Your task to perform on an android device: turn off data saver in the chrome app Image 0: 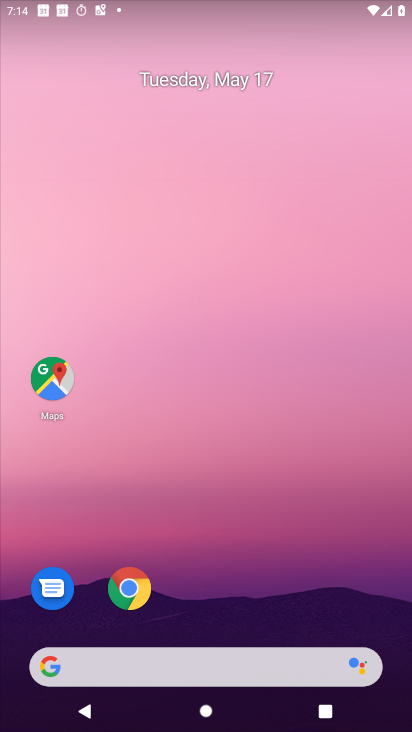
Step 0: click (129, 586)
Your task to perform on an android device: turn off data saver in the chrome app Image 1: 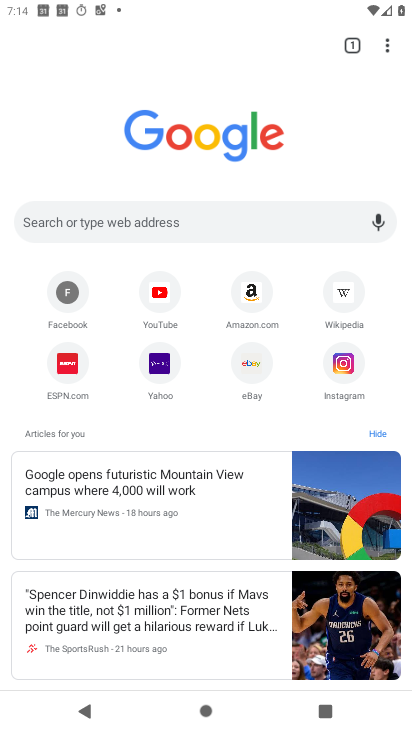
Step 1: click (387, 44)
Your task to perform on an android device: turn off data saver in the chrome app Image 2: 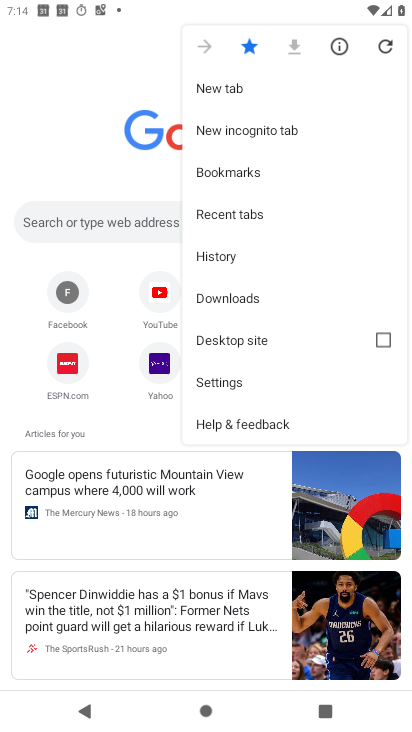
Step 2: click (207, 379)
Your task to perform on an android device: turn off data saver in the chrome app Image 3: 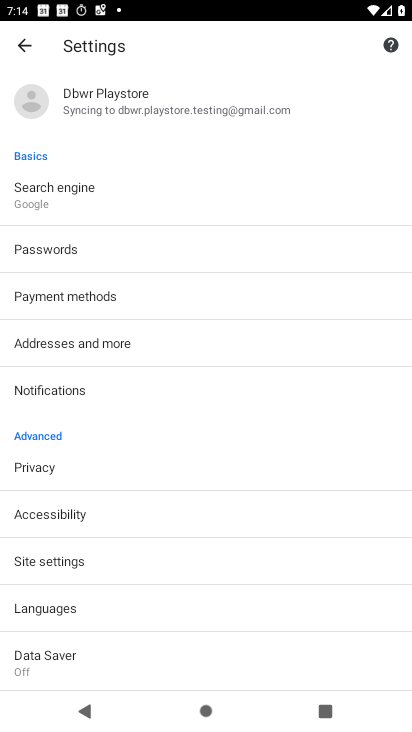
Step 3: drag from (101, 421) to (139, 340)
Your task to perform on an android device: turn off data saver in the chrome app Image 4: 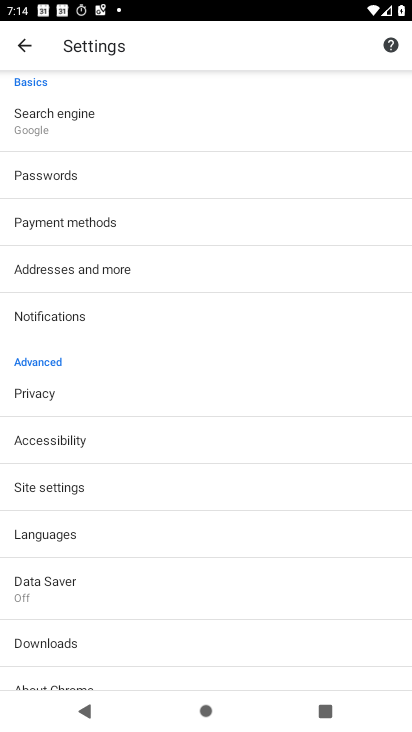
Step 4: click (68, 578)
Your task to perform on an android device: turn off data saver in the chrome app Image 5: 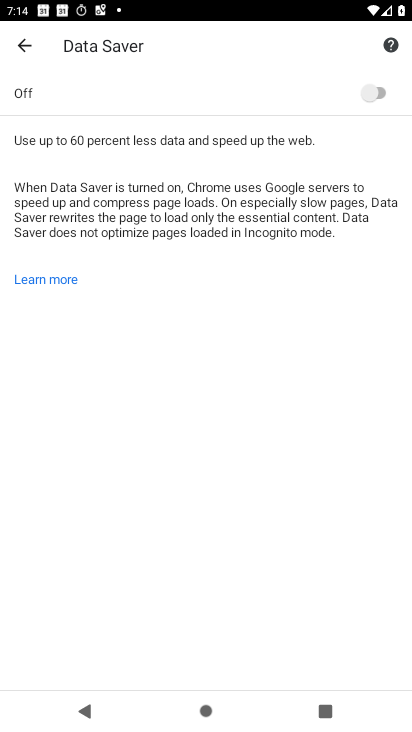
Step 5: task complete